Your task to perform on an android device: open app "Venmo" (install if not already installed) Image 0: 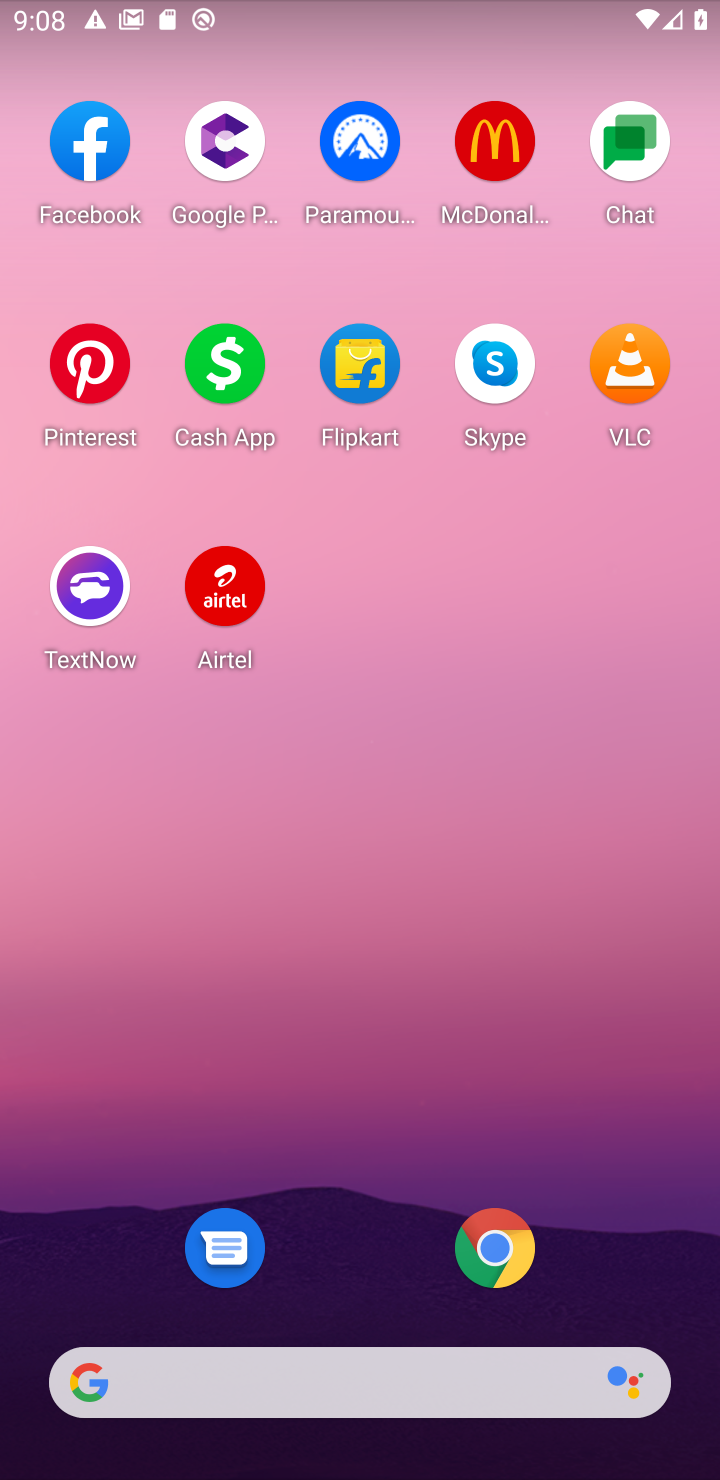
Step 0: drag from (345, 1177) to (365, 103)
Your task to perform on an android device: open app "Venmo" (install if not already installed) Image 1: 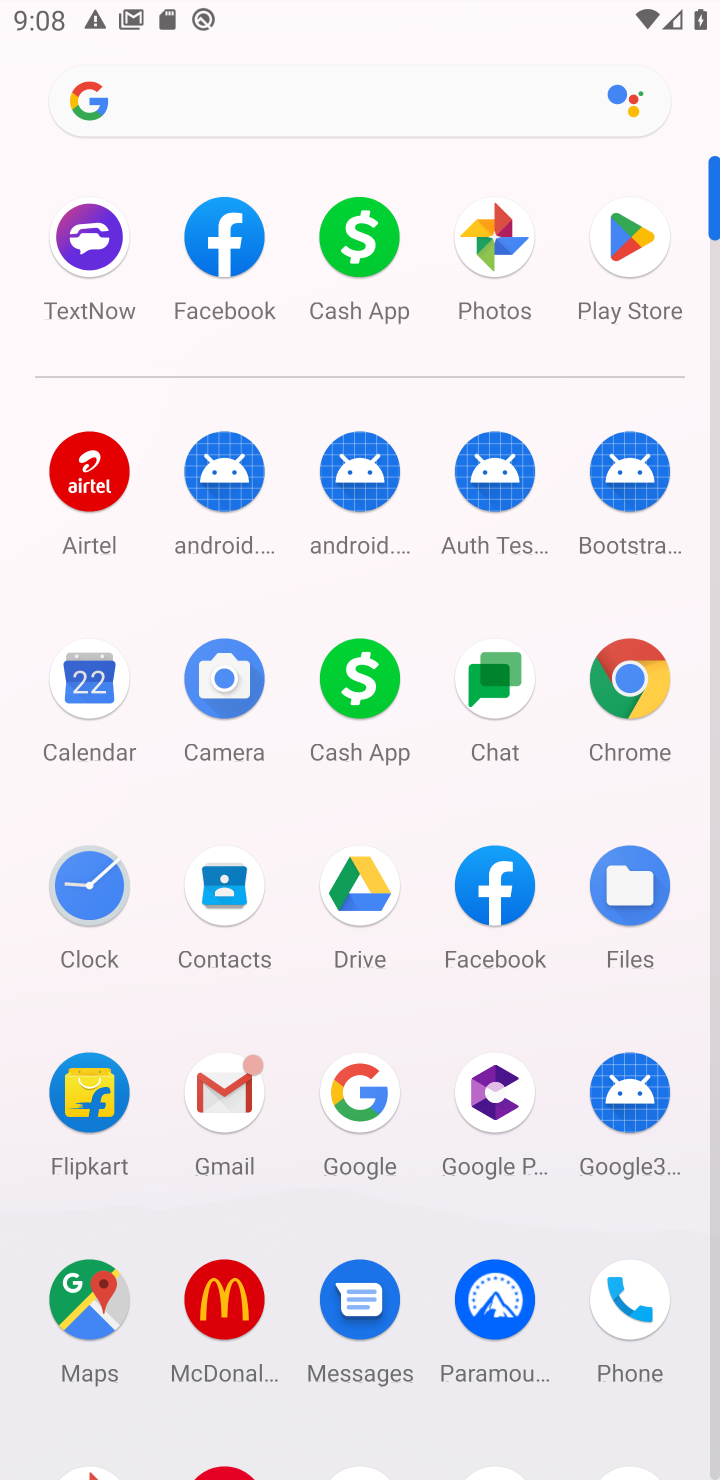
Step 1: click (626, 241)
Your task to perform on an android device: open app "Venmo" (install if not already installed) Image 2: 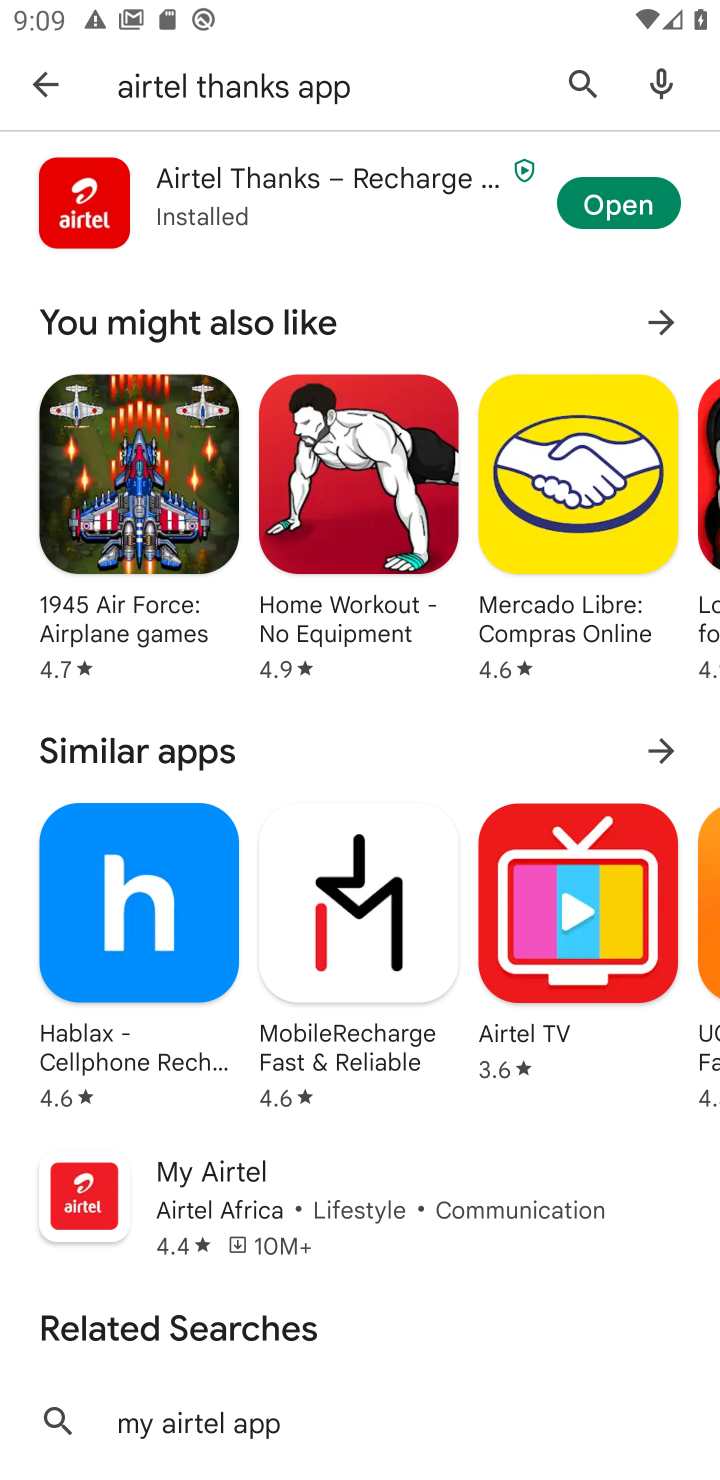
Step 2: click (579, 81)
Your task to perform on an android device: open app "Venmo" (install if not already installed) Image 3: 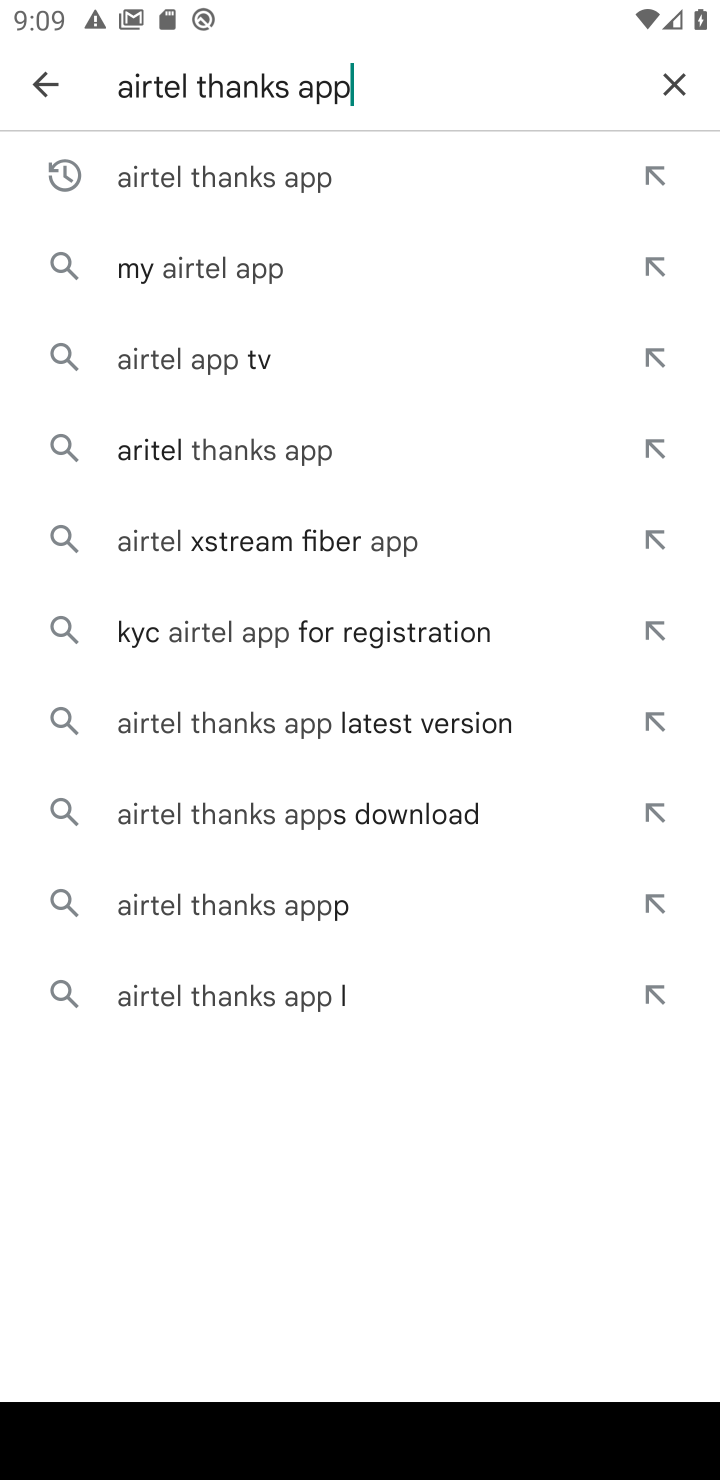
Step 3: click (667, 84)
Your task to perform on an android device: open app "Venmo" (install if not already installed) Image 4: 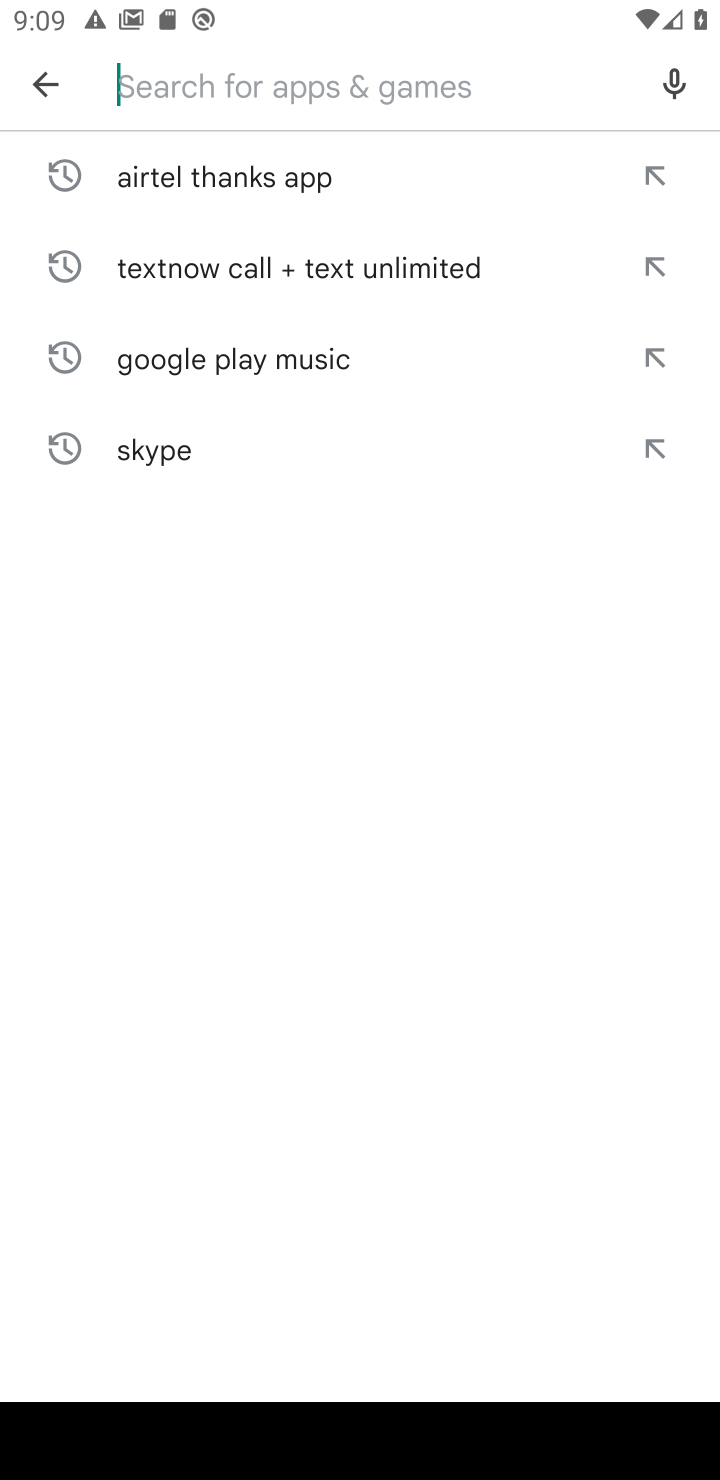
Step 4: type "Venmo"
Your task to perform on an android device: open app "Venmo" (install if not already installed) Image 5: 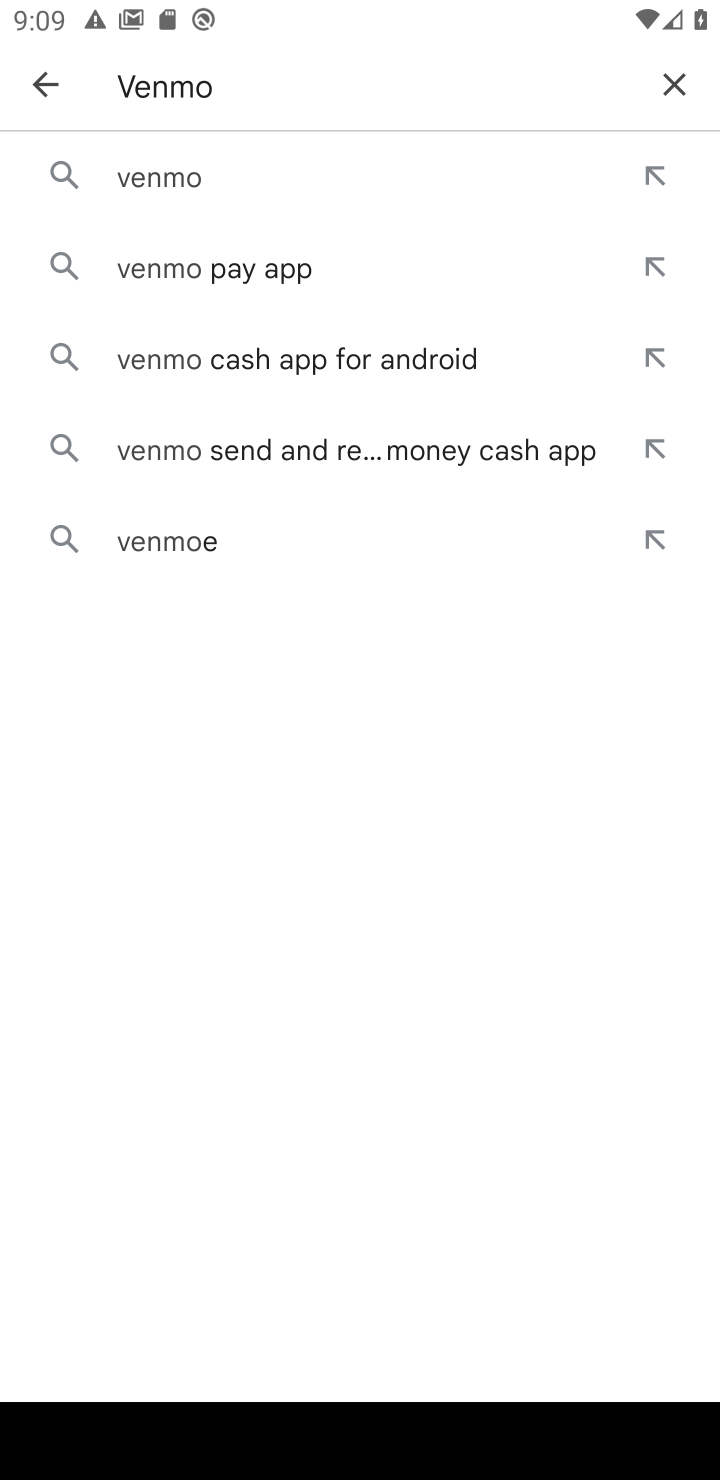
Step 5: click (155, 171)
Your task to perform on an android device: open app "Venmo" (install if not already installed) Image 6: 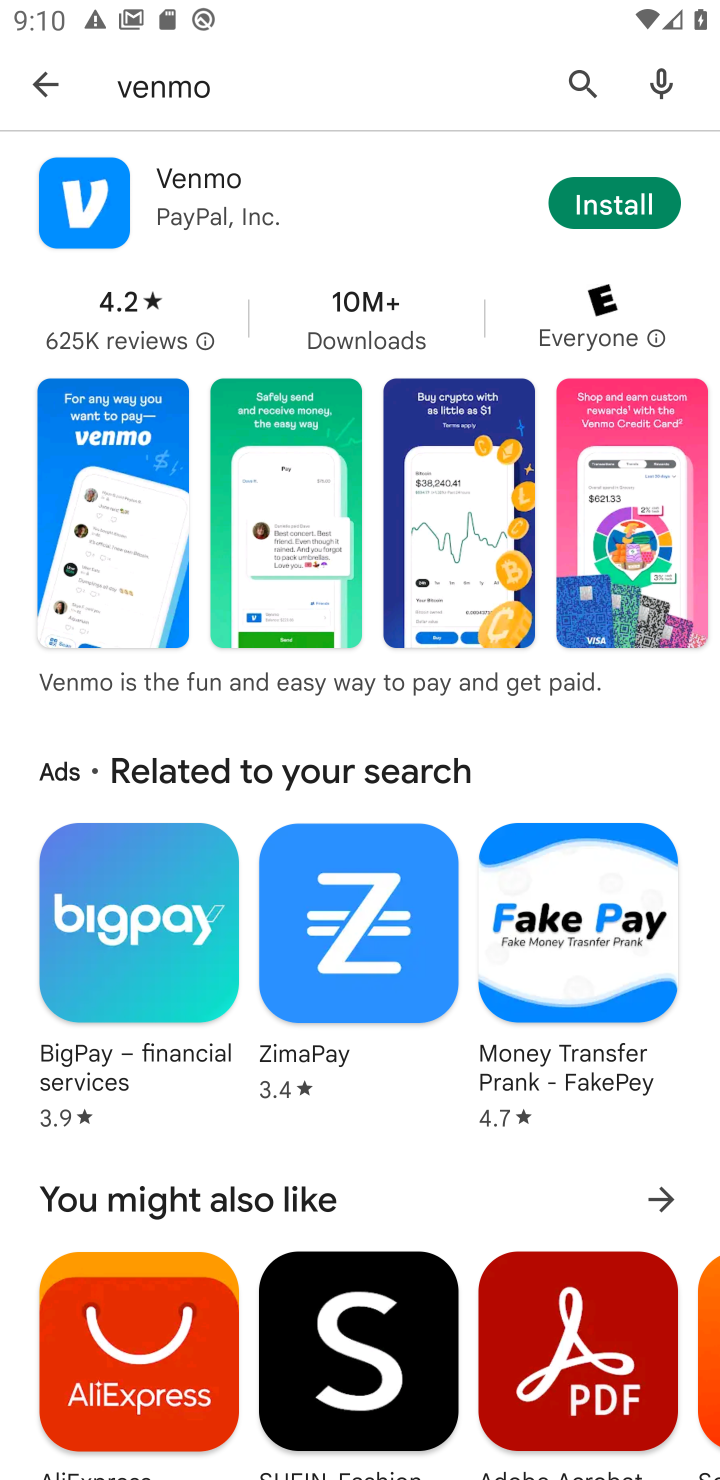
Step 6: click (588, 203)
Your task to perform on an android device: open app "Venmo" (install if not already installed) Image 7: 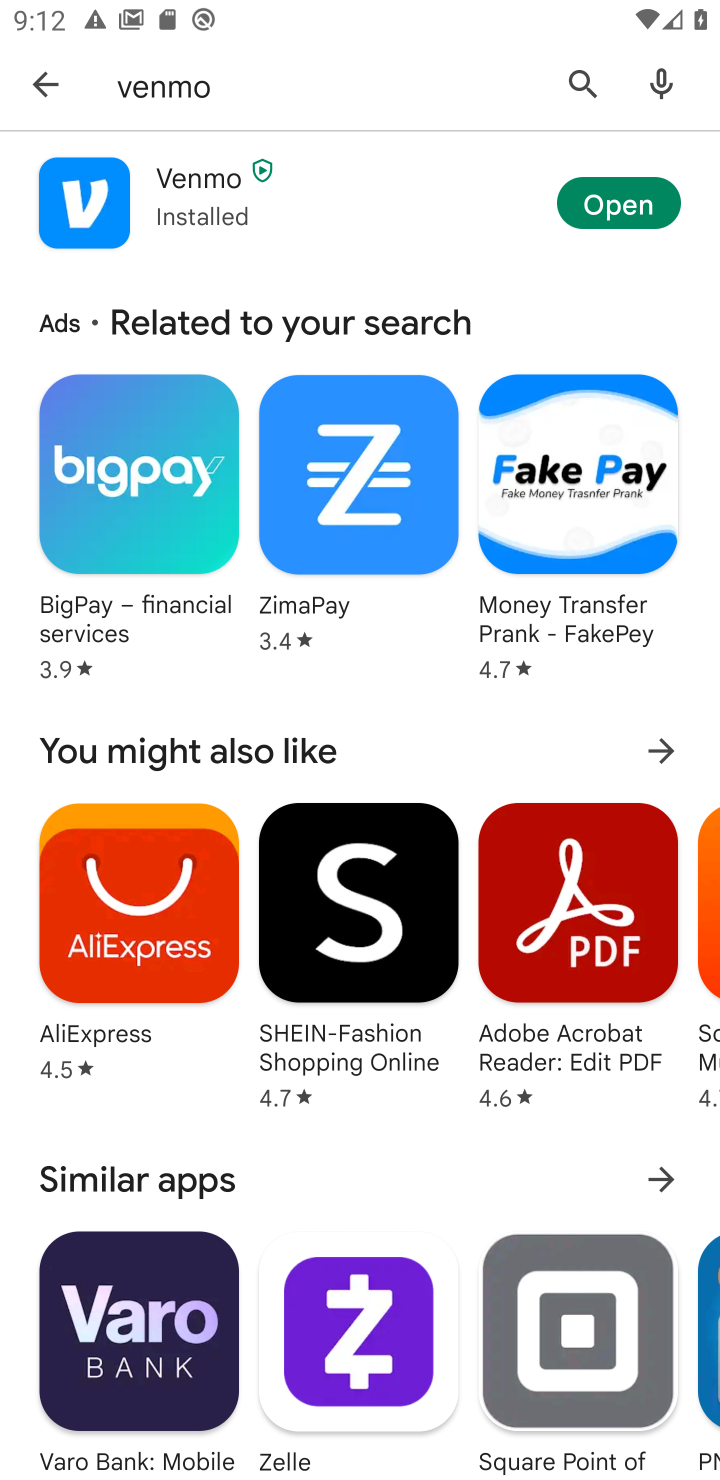
Step 7: click (616, 182)
Your task to perform on an android device: open app "Venmo" (install if not already installed) Image 8: 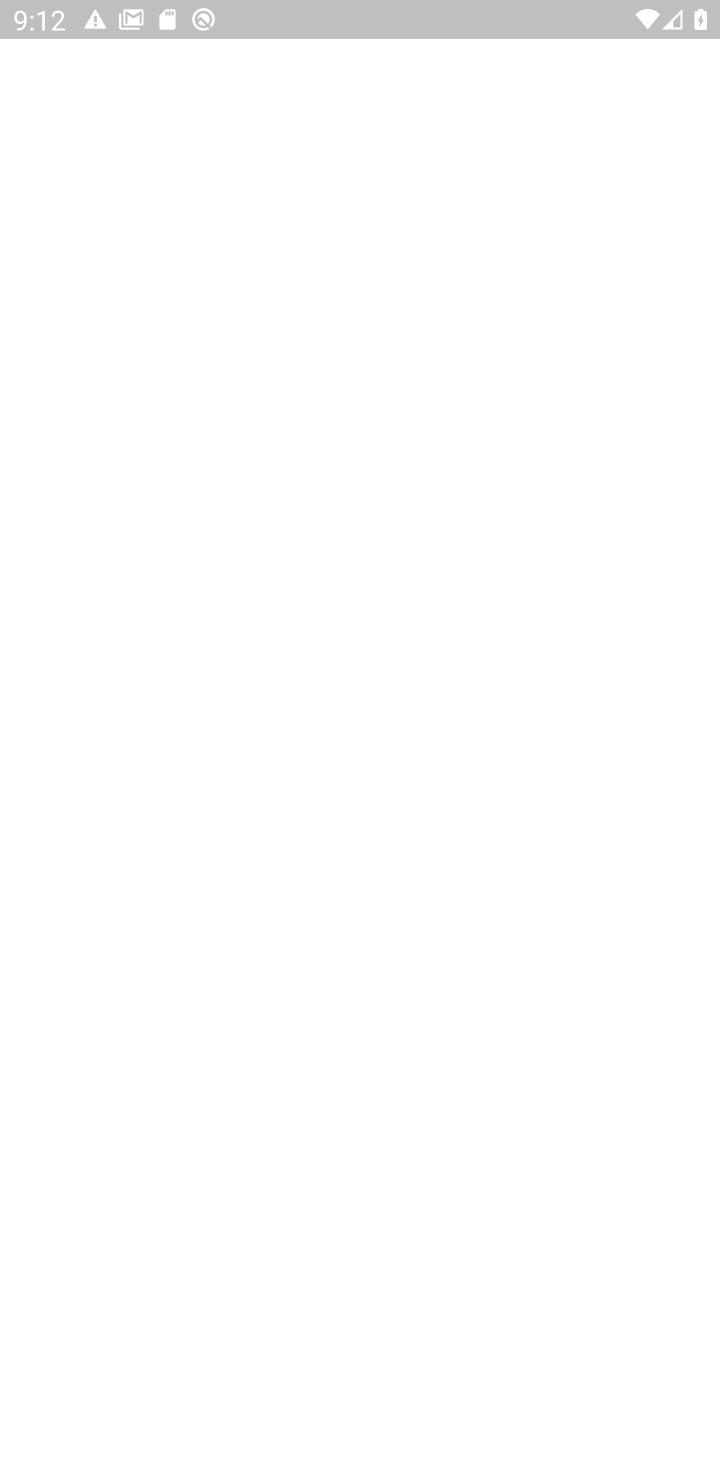
Step 8: task complete